Your task to perform on an android device: turn off improve location accuracy Image 0: 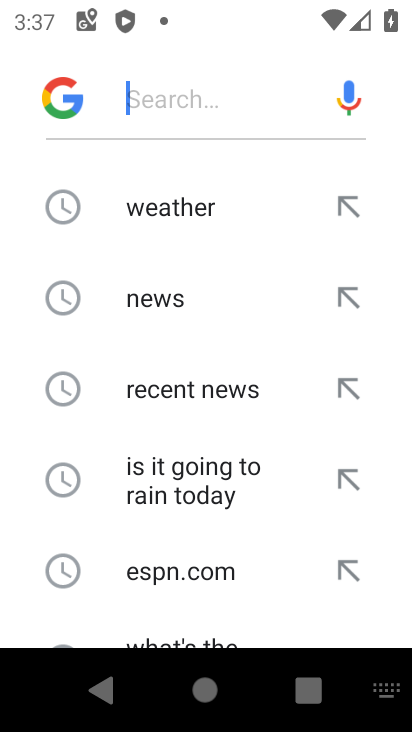
Step 0: task complete